Your task to perform on an android device: turn on wifi Image 0: 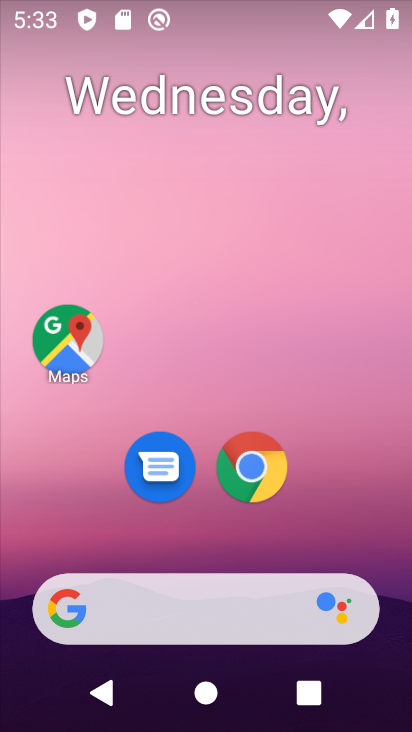
Step 0: drag from (163, 15) to (121, 508)
Your task to perform on an android device: turn on wifi Image 1: 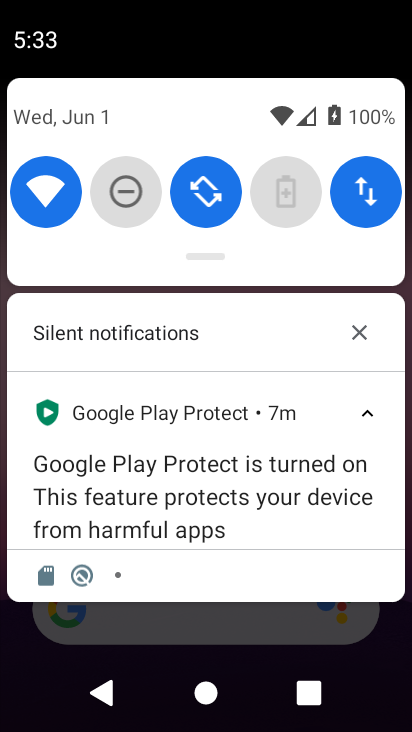
Step 1: task complete